Your task to perform on an android device: add a contact in the contacts app Image 0: 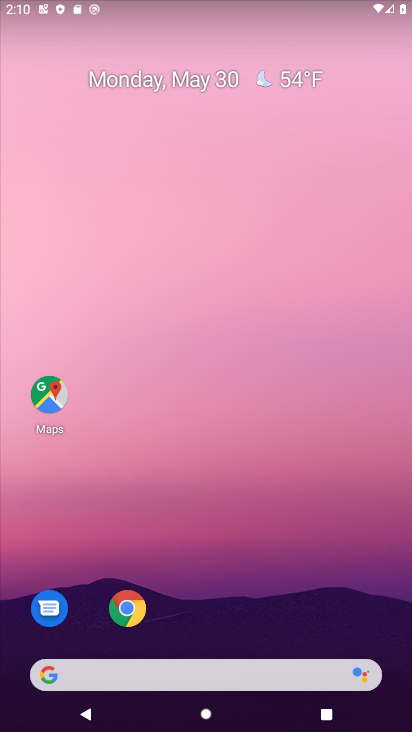
Step 0: drag from (326, 593) to (282, 85)
Your task to perform on an android device: add a contact in the contacts app Image 1: 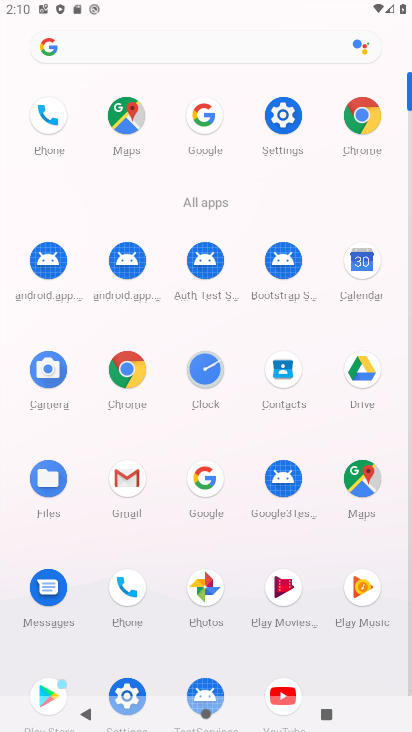
Step 1: click (291, 374)
Your task to perform on an android device: add a contact in the contacts app Image 2: 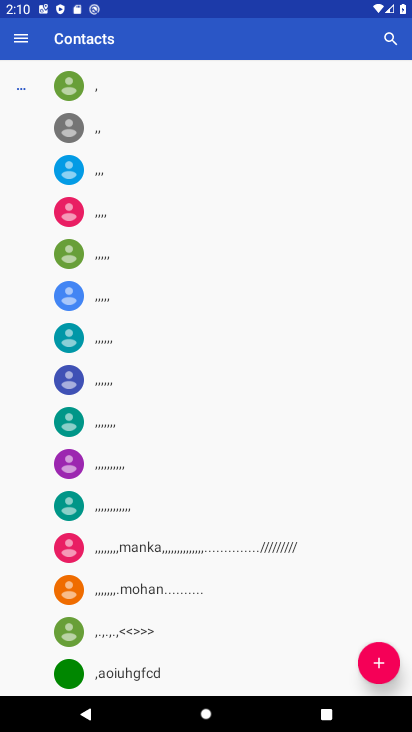
Step 2: click (393, 680)
Your task to perform on an android device: add a contact in the contacts app Image 3: 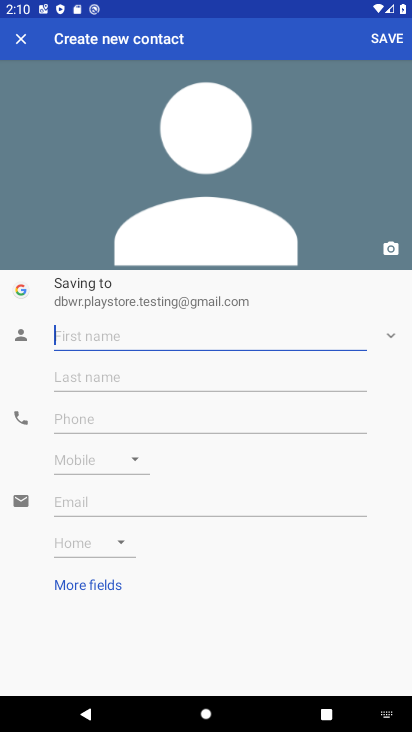
Step 3: type "fhhfg"
Your task to perform on an android device: add a contact in the contacts app Image 4: 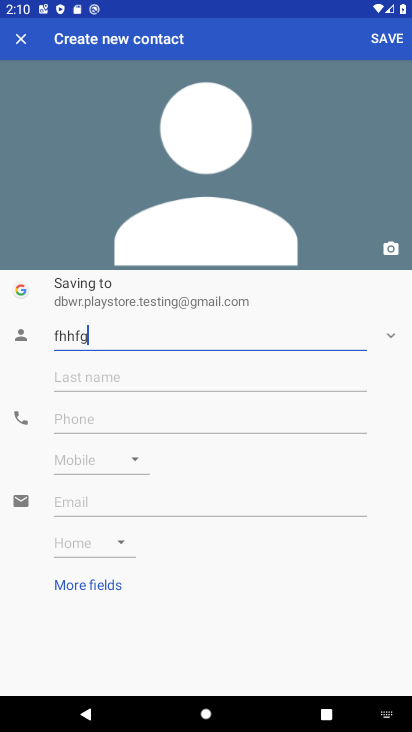
Step 4: type ""
Your task to perform on an android device: add a contact in the contacts app Image 5: 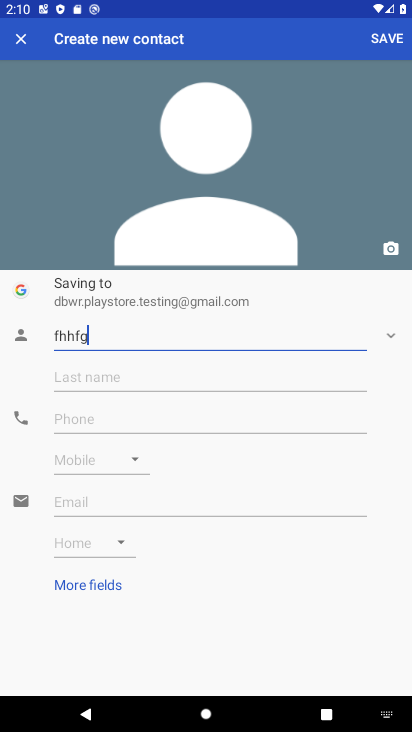
Step 5: click (298, 386)
Your task to perform on an android device: add a contact in the contacts app Image 6: 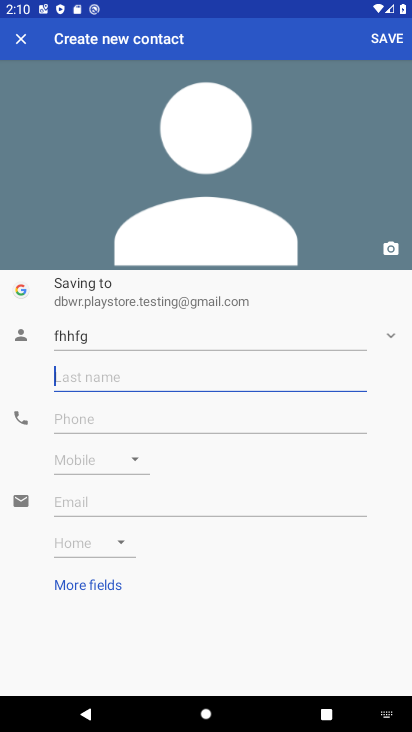
Step 6: type "hgfjhgjhg"
Your task to perform on an android device: add a contact in the contacts app Image 7: 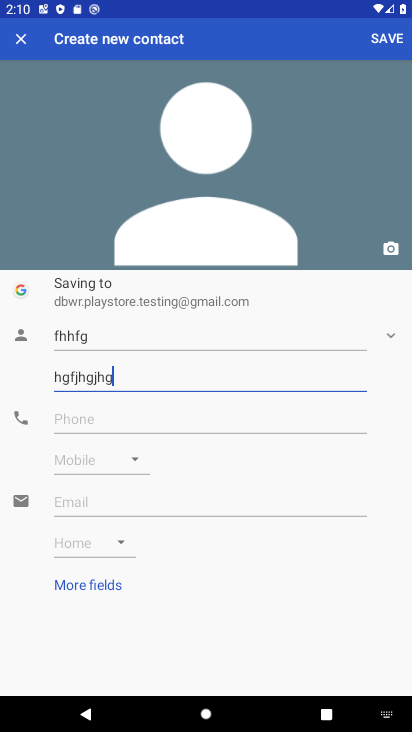
Step 7: type ""
Your task to perform on an android device: add a contact in the contacts app Image 8: 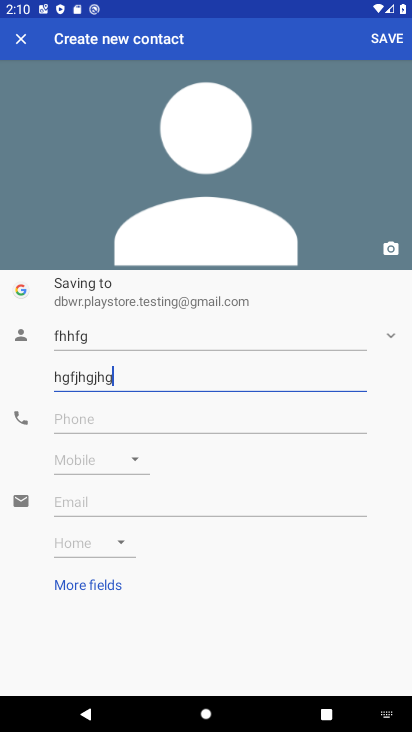
Step 8: click (215, 423)
Your task to perform on an android device: add a contact in the contacts app Image 9: 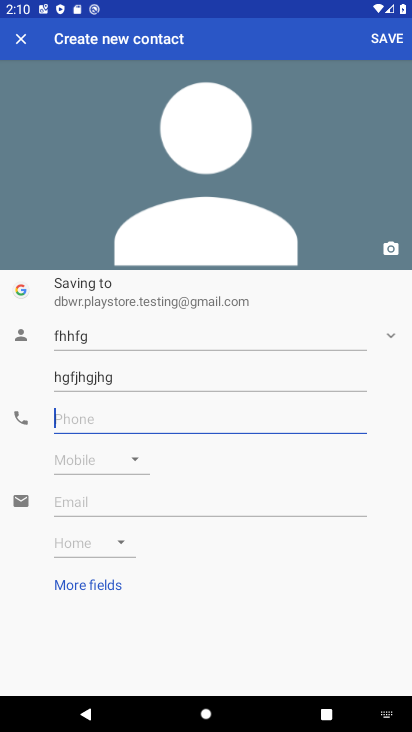
Step 9: type "67567576565"
Your task to perform on an android device: add a contact in the contacts app Image 10: 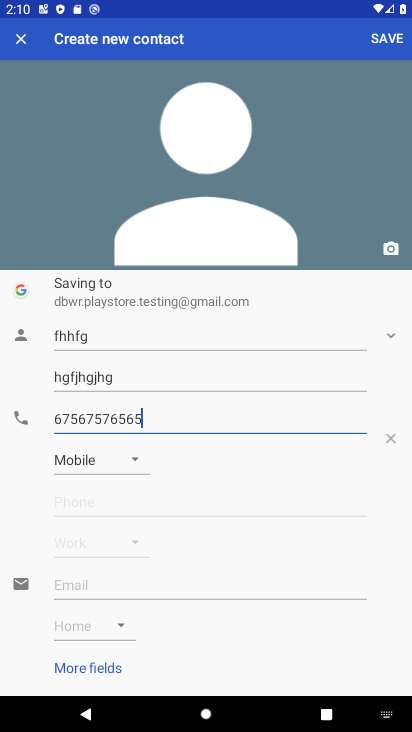
Step 10: type ""
Your task to perform on an android device: add a contact in the contacts app Image 11: 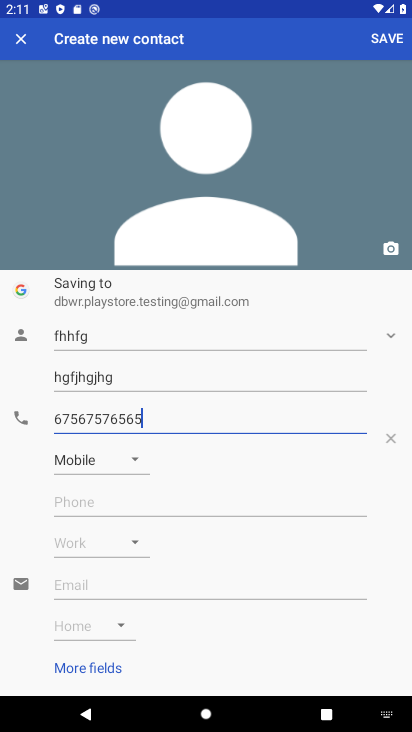
Step 11: click (386, 41)
Your task to perform on an android device: add a contact in the contacts app Image 12: 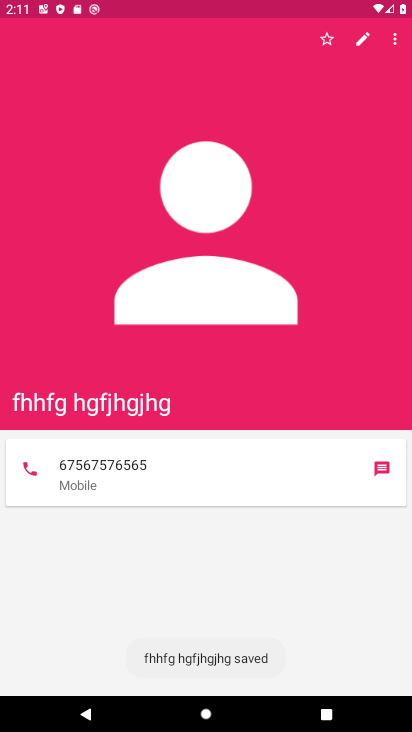
Step 12: task complete